Your task to perform on an android device: check android version Image 0: 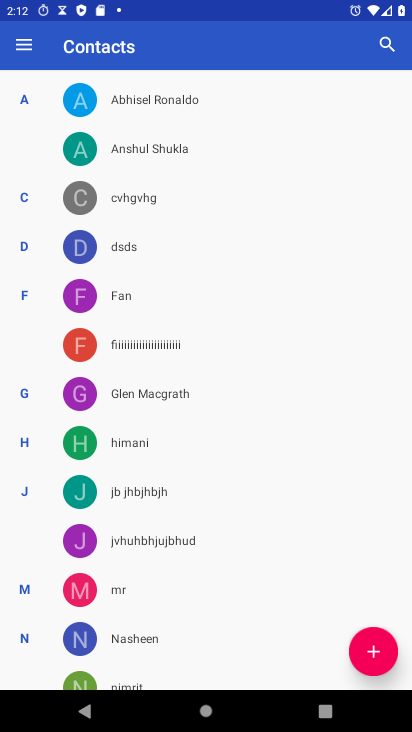
Step 0: press home button
Your task to perform on an android device: check android version Image 1: 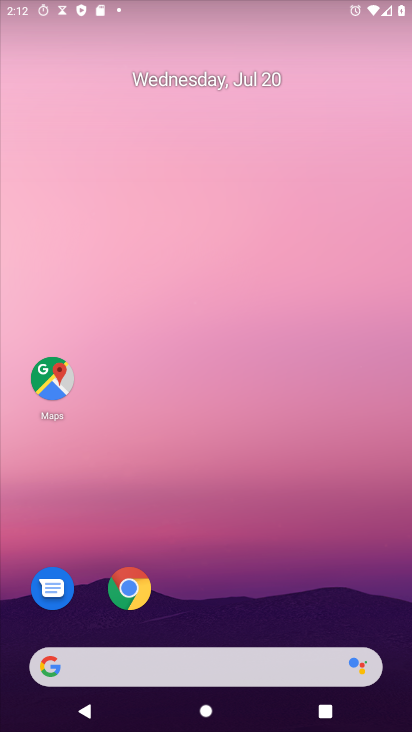
Step 1: drag from (189, 662) to (272, 2)
Your task to perform on an android device: check android version Image 2: 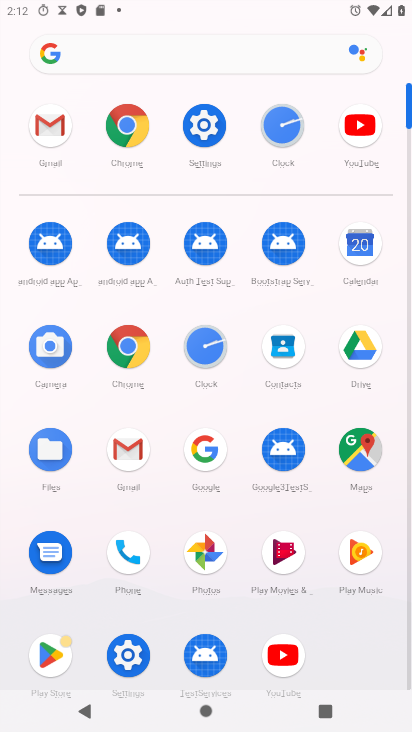
Step 2: click (215, 123)
Your task to perform on an android device: check android version Image 3: 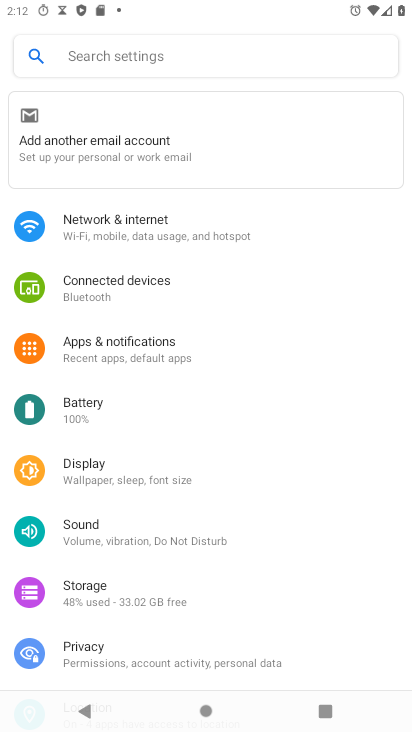
Step 3: drag from (144, 558) to (172, 7)
Your task to perform on an android device: check android version Image 4: 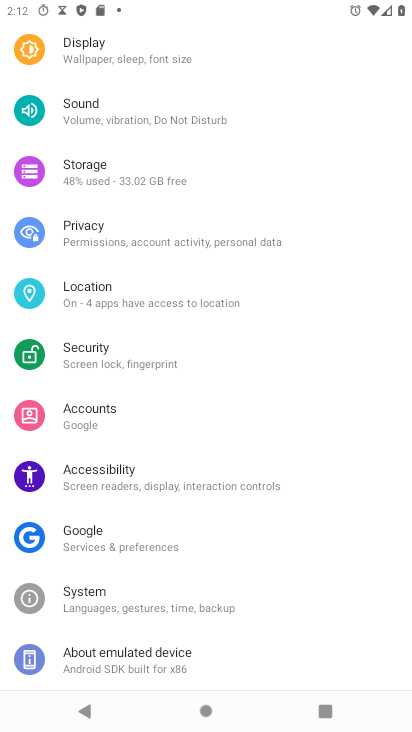
Step 4: click (182, 661)
Your task to perform on an android device: check android version Image 5: 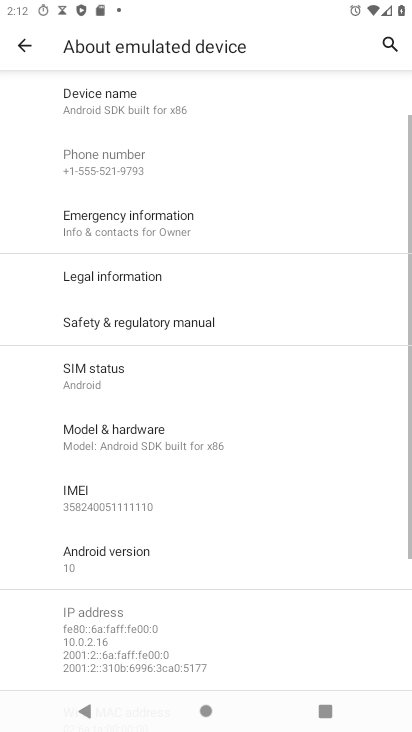
Step 5: click (165, 544)
Your task to perform on an android device: check android version Image 6: 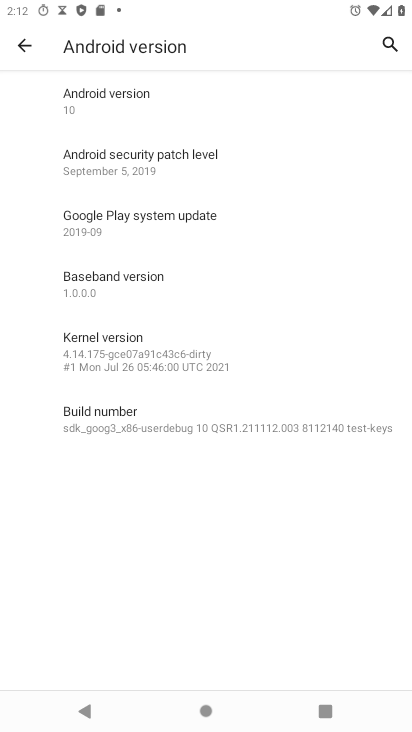
Step 6: task complete